Your task to perform on an android device: Open wifi settings Image 0: 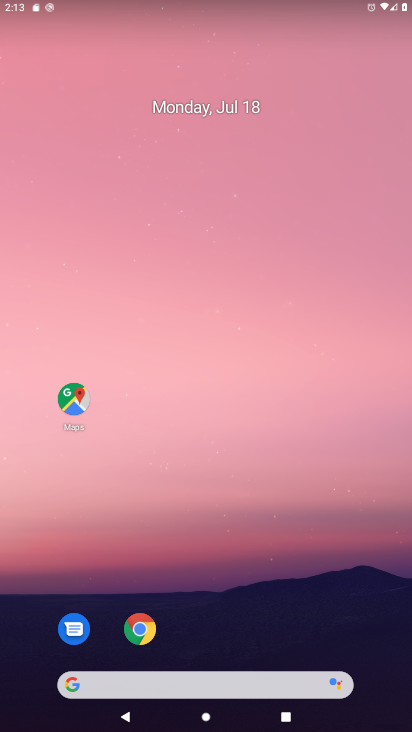
Step 0: drag from (230, 78) to (128, 5)
Your task to perform on an android device: Open wifi settings Image 1: 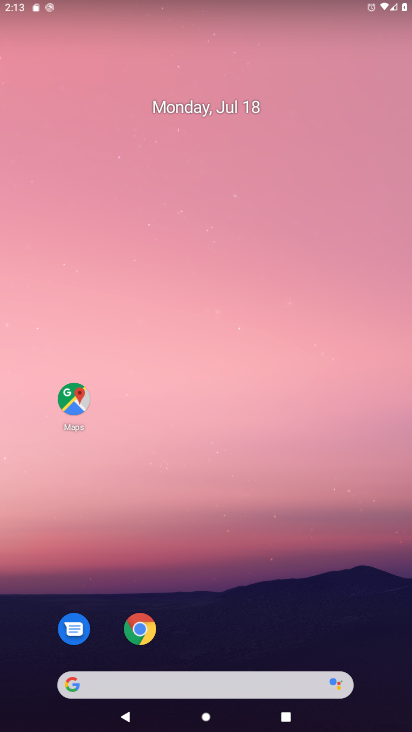
Step 1: drag from (207, 493) to (269, 131)
Your task to perform on an android device: Open wifi settings Image 2: 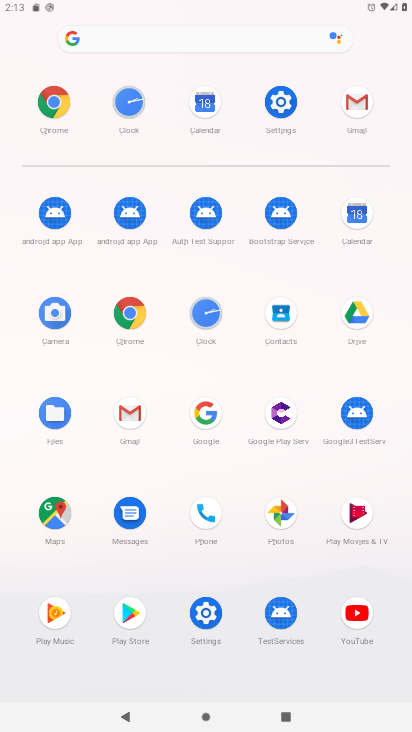
Step 2: click (280, 102)
Your task to perform on an android device: Open wifi settings Image 3: 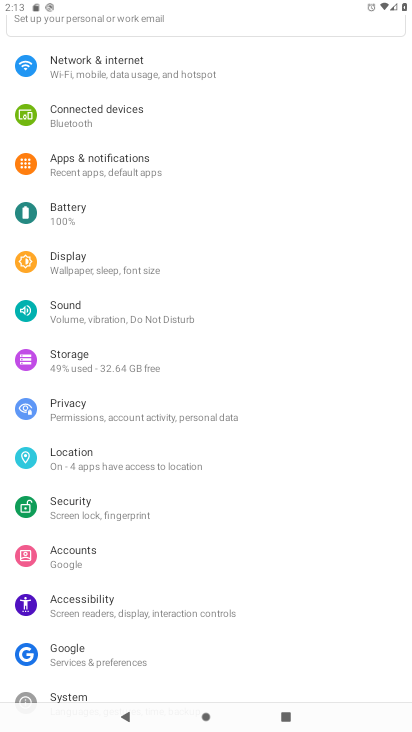
Step 3: click (211, 74)
Your task to perform on an android device: Open wifi settings Image 4: 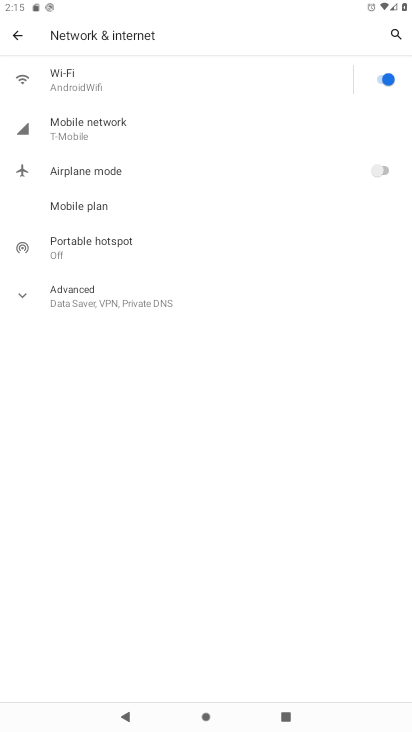
Step 4: click (137, 70)
Your task to perform on an android device: Open wifi settings Image 5: 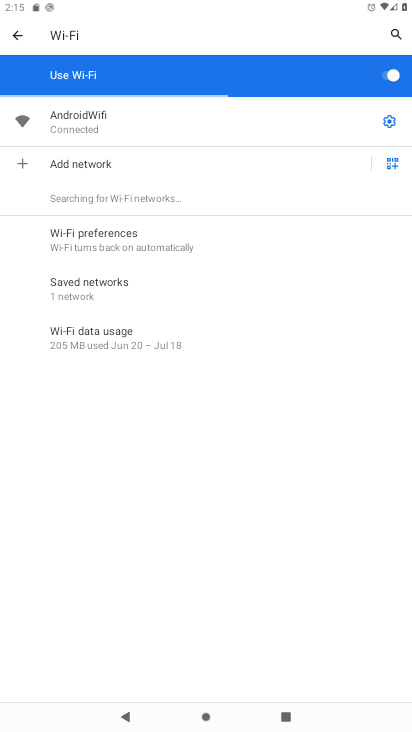
Step 5: task complete